Your task to perform on an android device: turn off notifications in google photos Image 0: 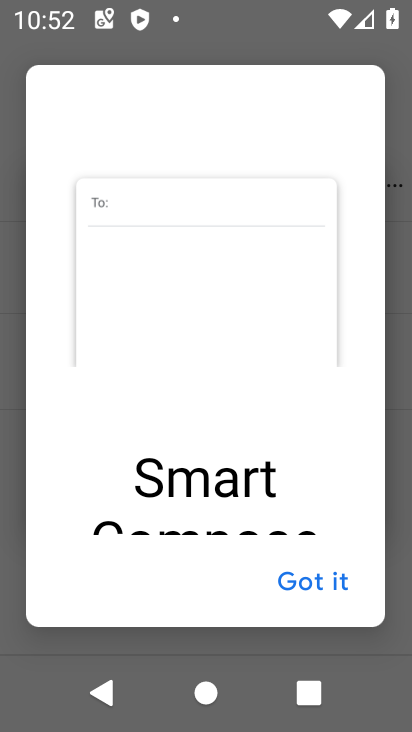
Step 0: press home button
Your task to perform on an android device: turn off notifications in google photos Image 1: 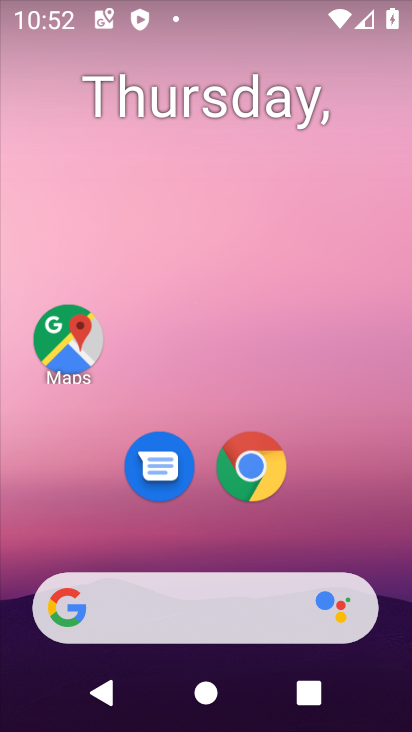
Step 1: drag from (203, 560) to (217, 7)
Your task to perform on an android device: turn off notifications in google photos Image 2: 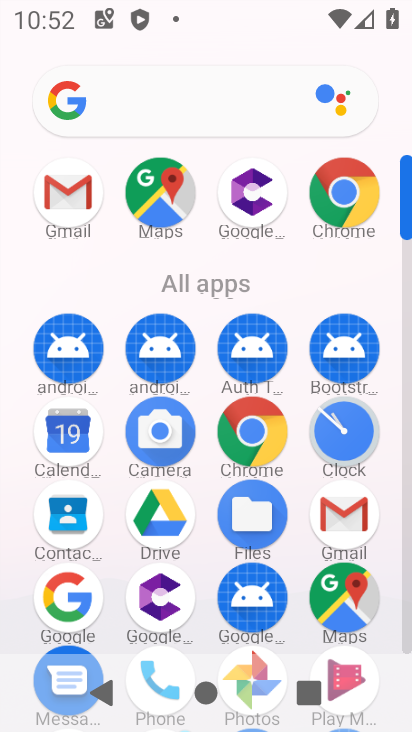
Step 2: click (243, 655)
Your task to perform on an android device: turn off notifications in google photos Image 3: 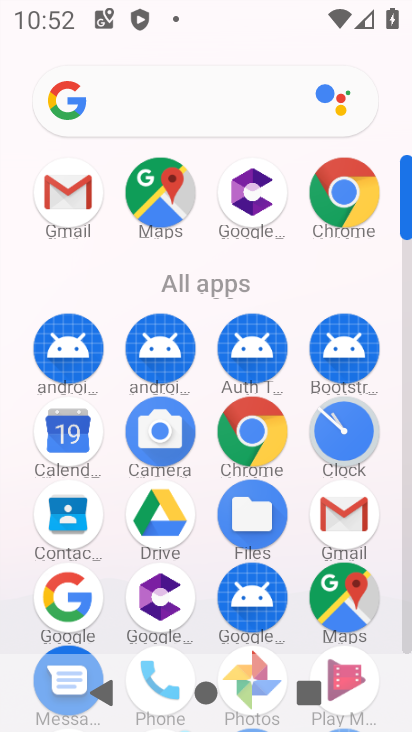
Step 3: drag from (206, 547) to (187, 272)
Your task to perform on an android device: turn off notifications in google photos Image 4: 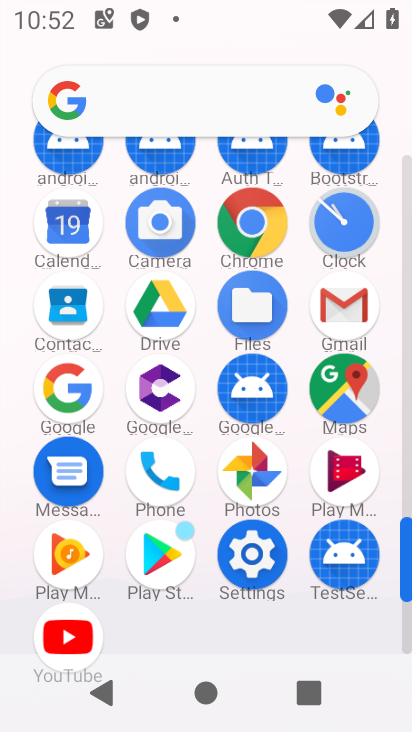
Step 4: click (246, 481)
Your task to perform on an android device: turn off notifications in google photos Image 5: 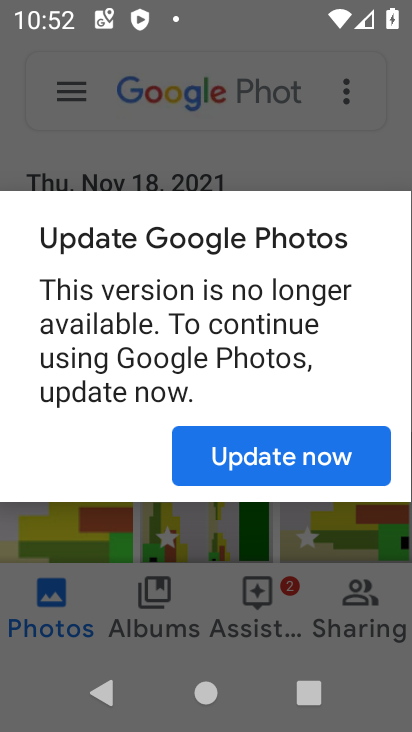
Step 5: click (334, 473)
Your task to perform on an android device: turn off notifications in google photos Image 6: 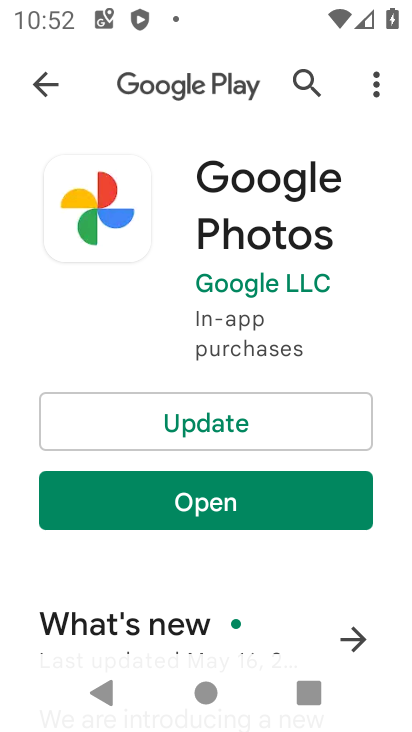
Step 6: click (329, 527)
Your task to perform on an android device: turn off notifications in google photos Image 7: 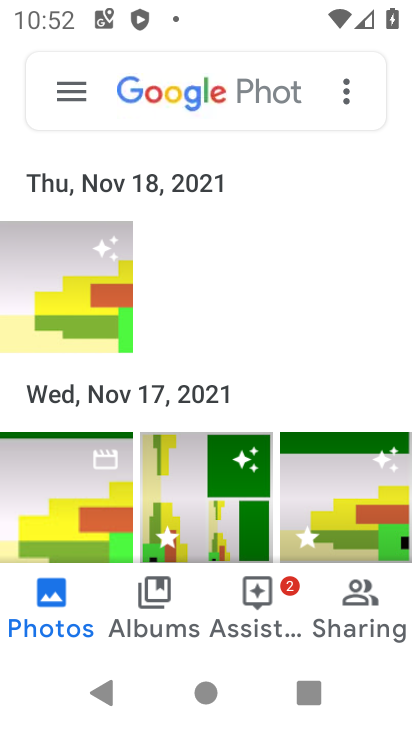
Step 7: click (79, 83)
Your task to perform on an android device: turn off notifications in google photos Image 8: 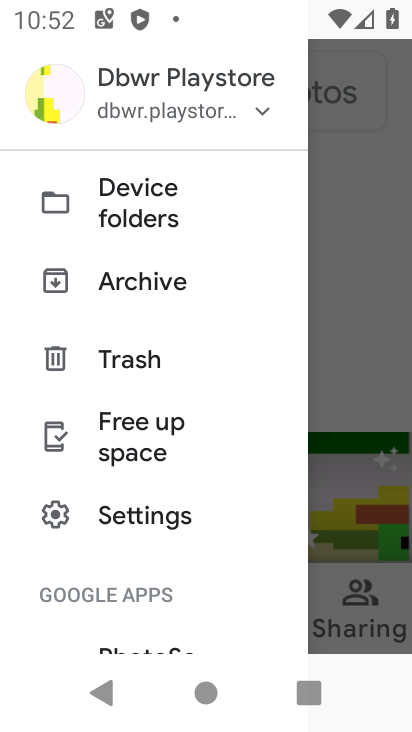
Step 8: click (116, 528)
Your task to perform on an android device: turn off notifications in google photos Image 9: 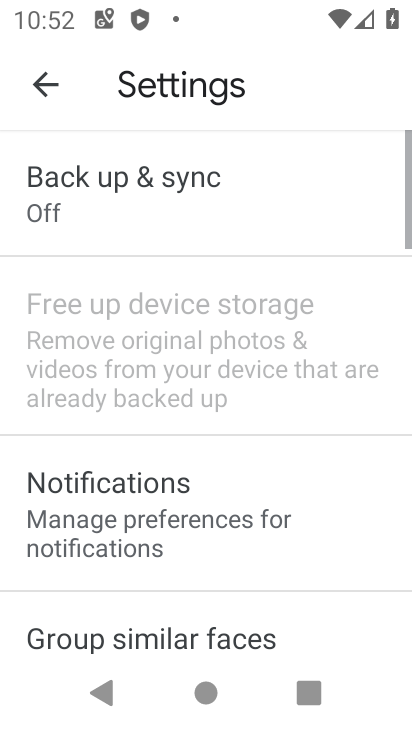
Step 9: click (123, 516)
Your task to perform on an android device: turn off notifications in google photos Image 10: 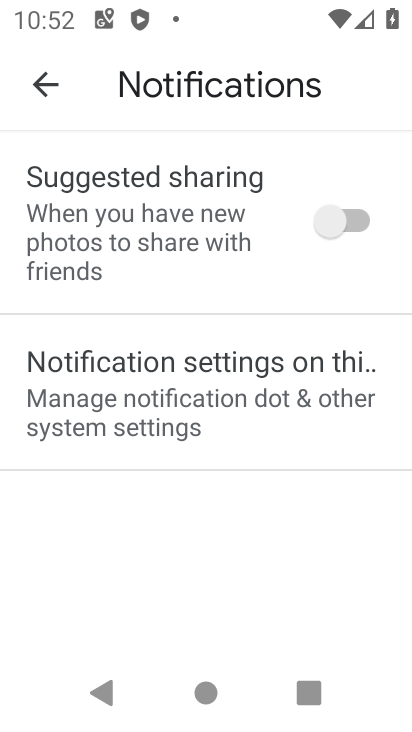
Step 10: click (199, 384)
Your task to perform on an android device: turn off notifications in google photos Image 11: 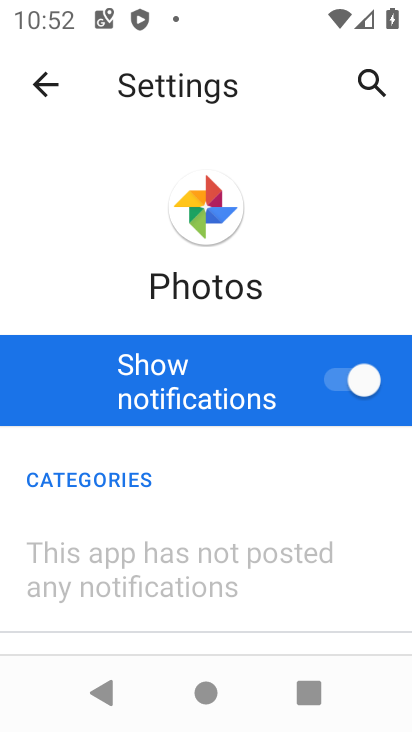
Step 11: click (336, 398)
Your task to perform on an android device: turn off notifications in google photos Image 12: 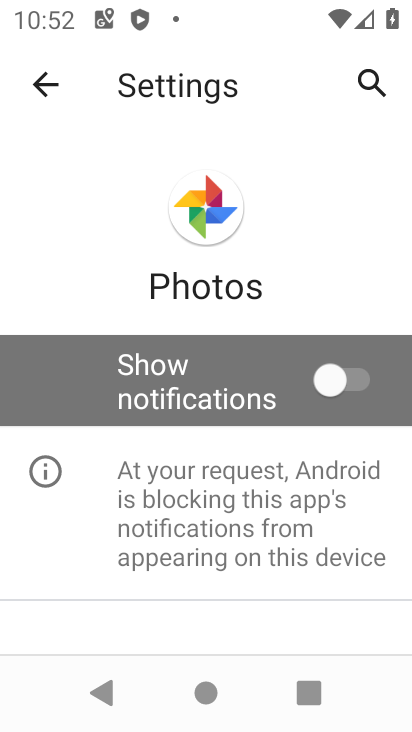
Step 12: task complete